Your task to perform on an android device: Open the phone app and click the voicemail tab. Image 0: 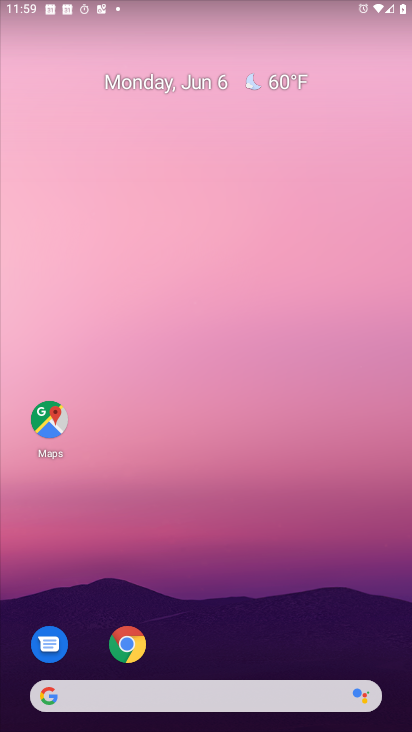
Step 0: drag from (100, 729) to (111, 122)
Your task to perform on an android device: Open the phone app and click the voicemail tab. Image 1: 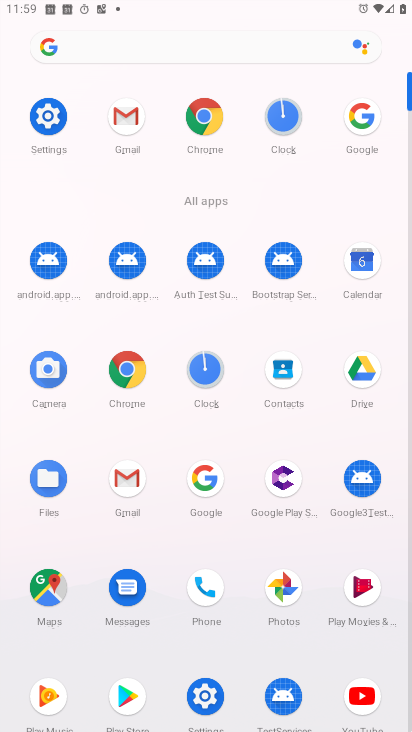
Step 1: click (211, 594)
Your task to perform on an android device: Open the phone app and click the voicemail tab. Image 2: 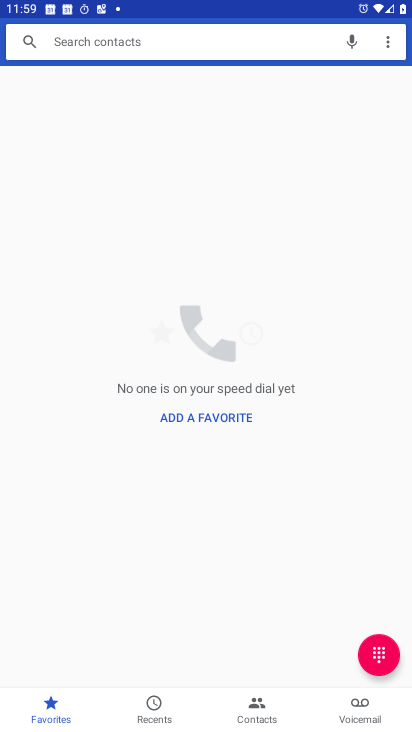
Step 2: click (369, 719)
Your task to perform on an android device: Open the phone app and click the voicemail tab. Image 3: 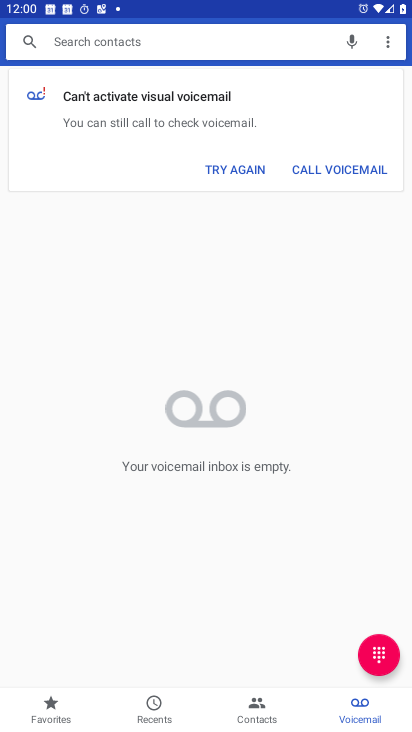
Step 3: task complete